Your task to perform on an android device: Open calendar and show me the second week of next month Image 0: 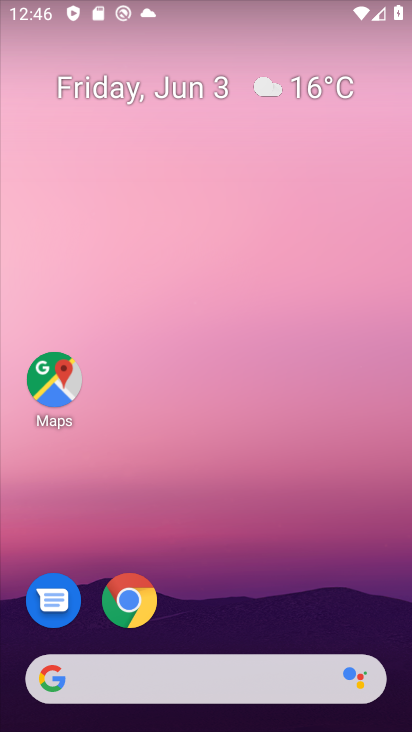
Step 0: click (130, 28)
Your task to perform on an android device: Open calendar and show me the second week of next month Image 1: 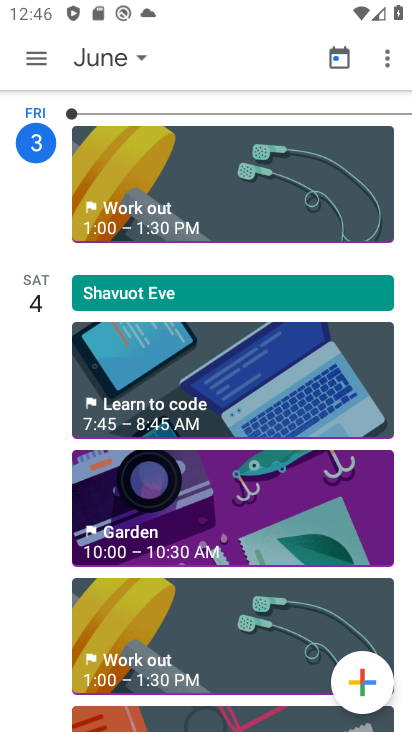
Step 1: press back button
Your task to perform on an android device: Open calendar and show me the second week of next month Image 2: 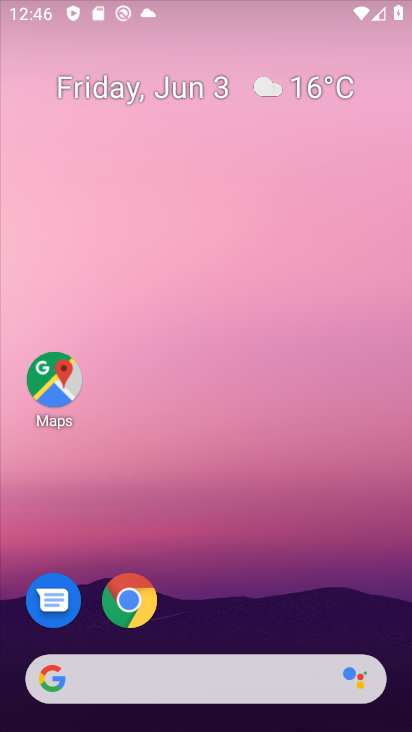
Step 2: drag from (218, 613) to (211, 258)
Your task to perform on an android device: Open calendar and show me the second week of next month Image 3: 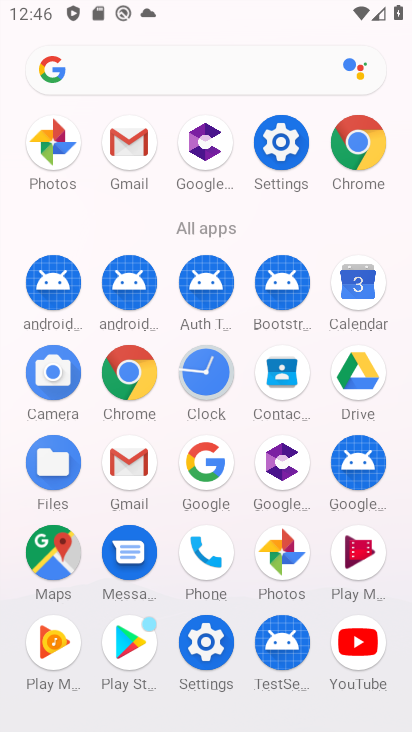
Step 3: click (279, 573)
Your task to perform on an android device: Open calendar and show me the second week of next month Image 4: 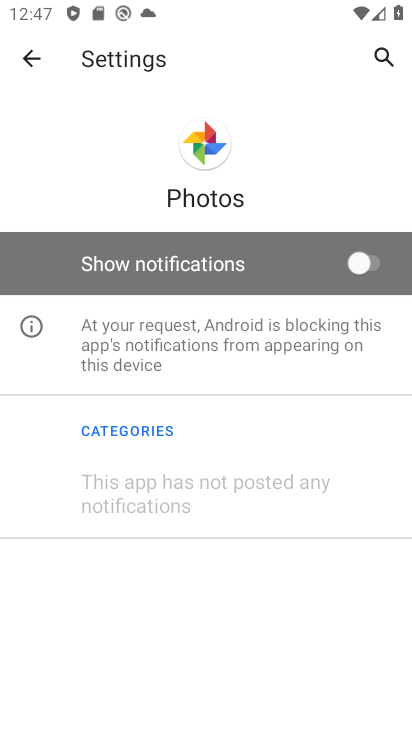
Step 4: click (29, 63)
Your task to perform on an android device: Open calendar and show me the second week of next month Image 5: 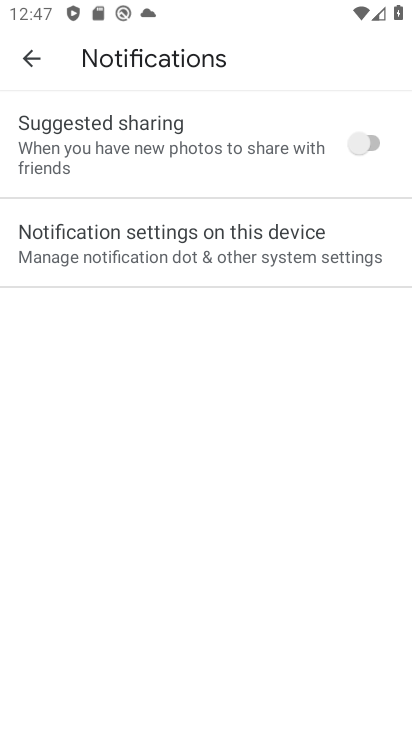
Step 5: click (24, 55)
Your task to perform on an android device: Open calendar and show me the second week of next month Image 6: 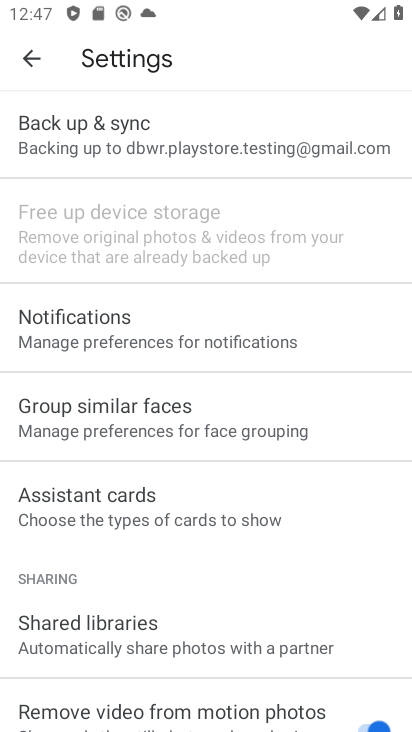
Step 6: click (35, 68)
Your task to perform on an android device: Open calendar and show me the second week of next month Image 7: 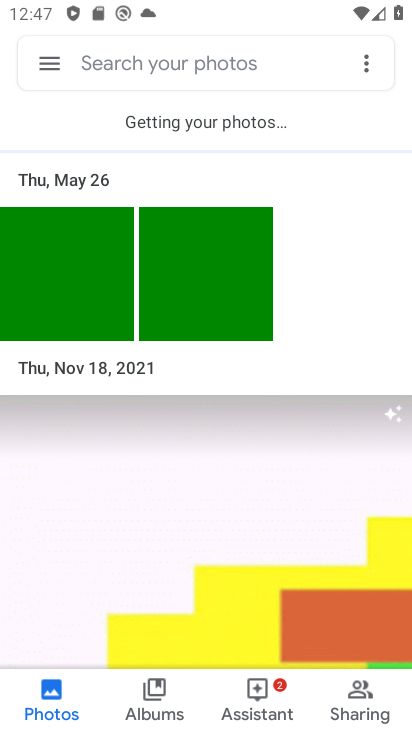
Step 7: click (41, 65)
Your task to perform on an android device: Open calendar and show me the second week of next month Image 8: 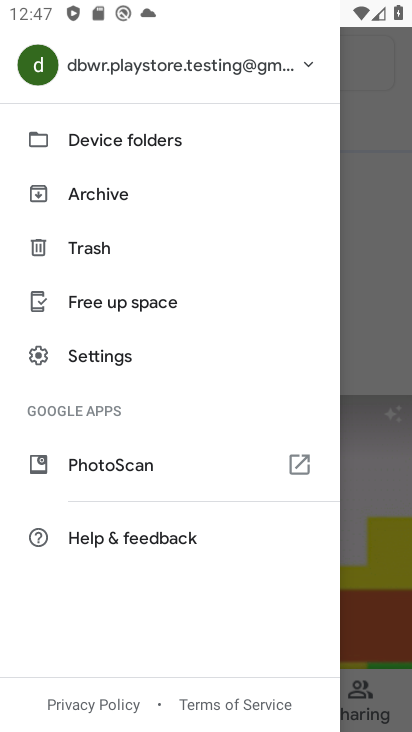
Step 8: click (89, 250)
Your task to perform on an android device: Open calendar and show me the second week of next month Image 9: 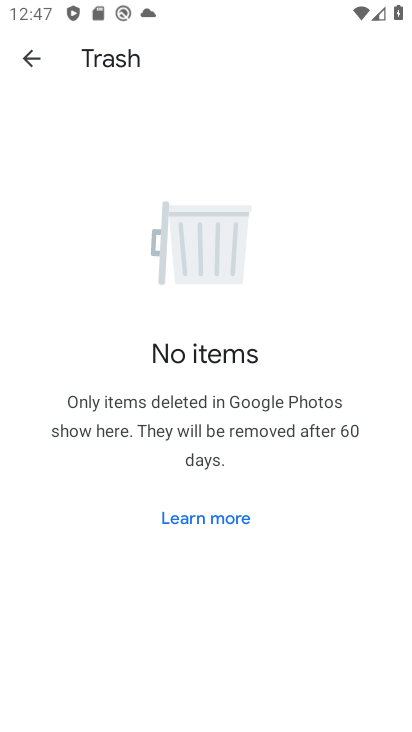
Step 9: task complete